Your task to perform on an android device: Open maps Image 0: 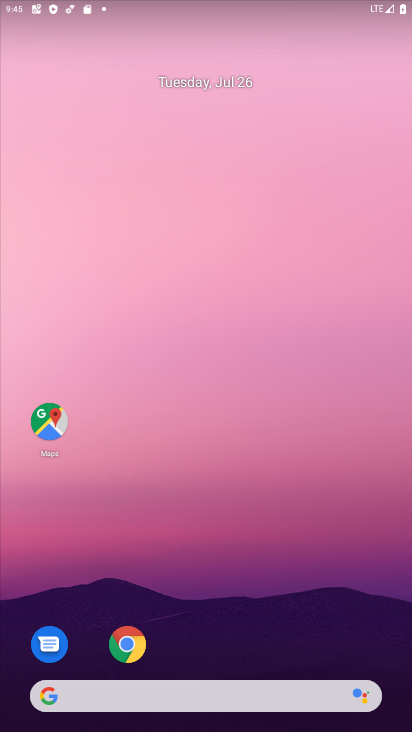
Step 0: click (45, 418)
Your task to perform on an android device: Open maps Image 1: 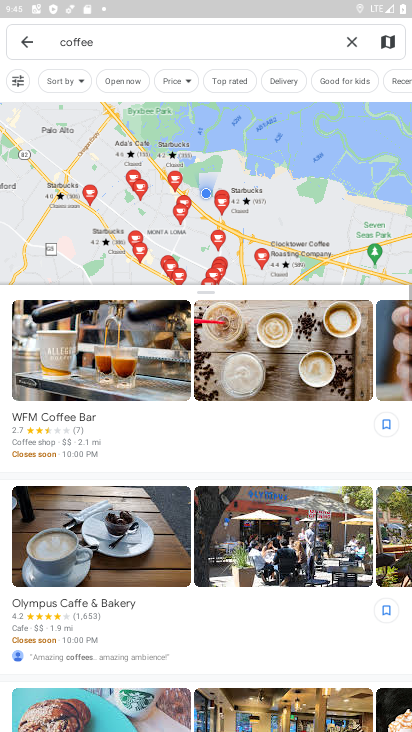
Step 1: task complete